Your task to perform on an android device: Set the phone to "Do not disturb". Image 0: 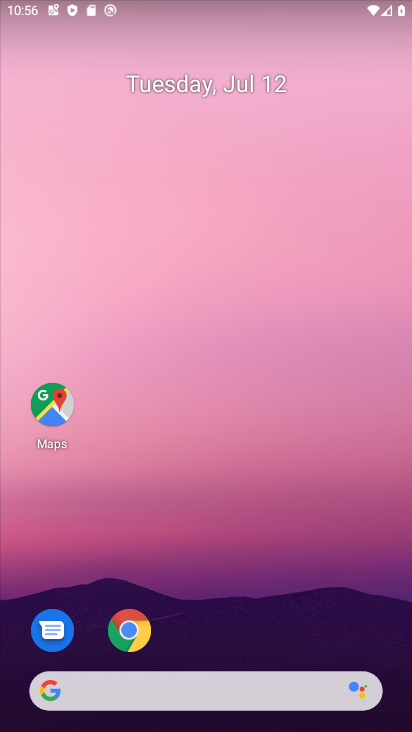
Step 0: drag from (321, 624) to (343, 172)
Your task to perform on an android device: Set the phone to "Do not disturb". Image 1: 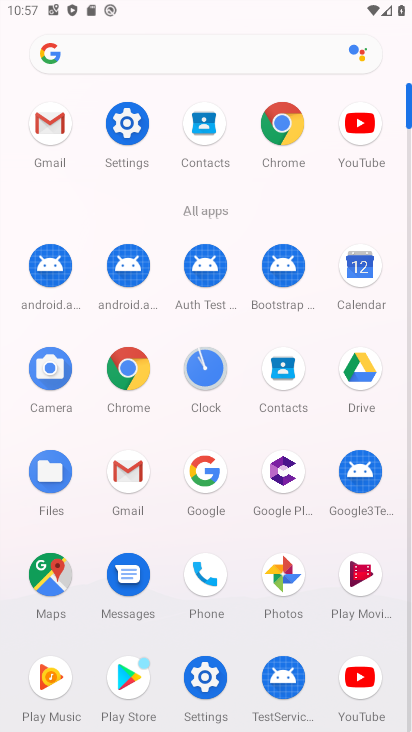
Step 1: drag from (241, 3) to (248, 579)
Your task to perform on an android device: Set the phone to "Do not disturb". Image 2: 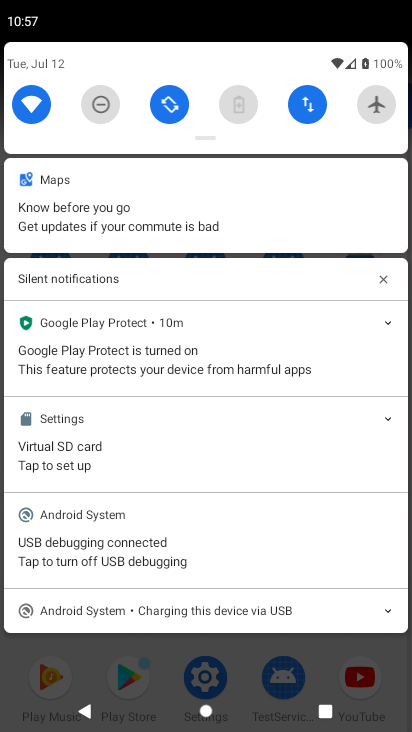
Step 2: click (106, 97)
Your task to perform on an android device: Set the phone to "Do not disturb". Image 3: 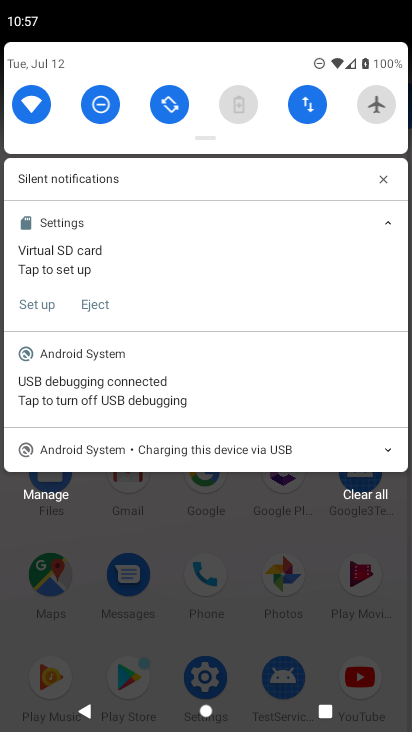
Step 3: task complete